Your task to perform on an android device: Find coffee shops on Maps Image 0: 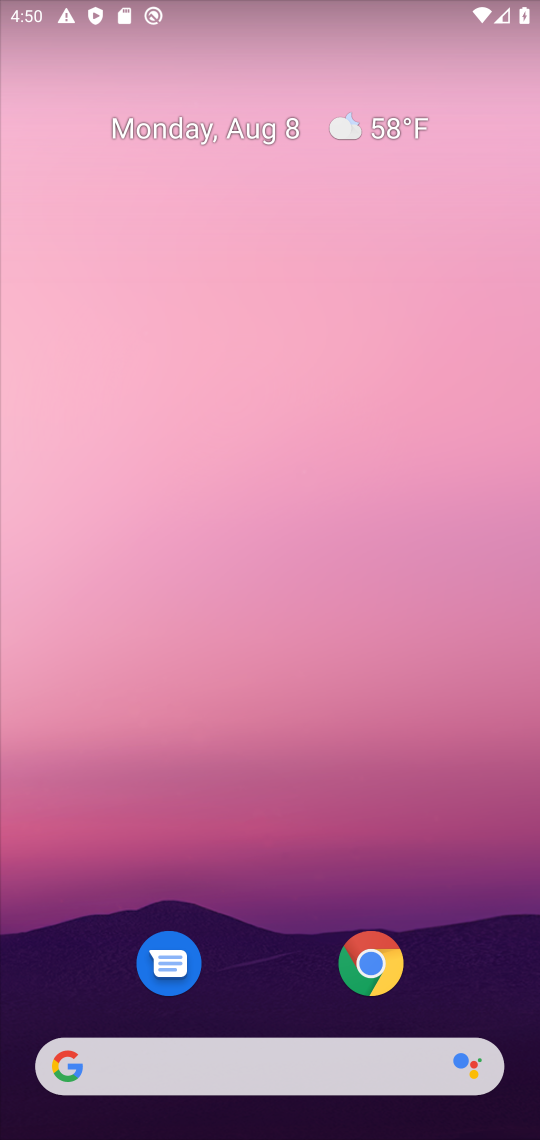
Step 0: drag from (265, 907) to (81, 1)
Your task to perform on an android device: Find coffee shops on Maps Image 1: 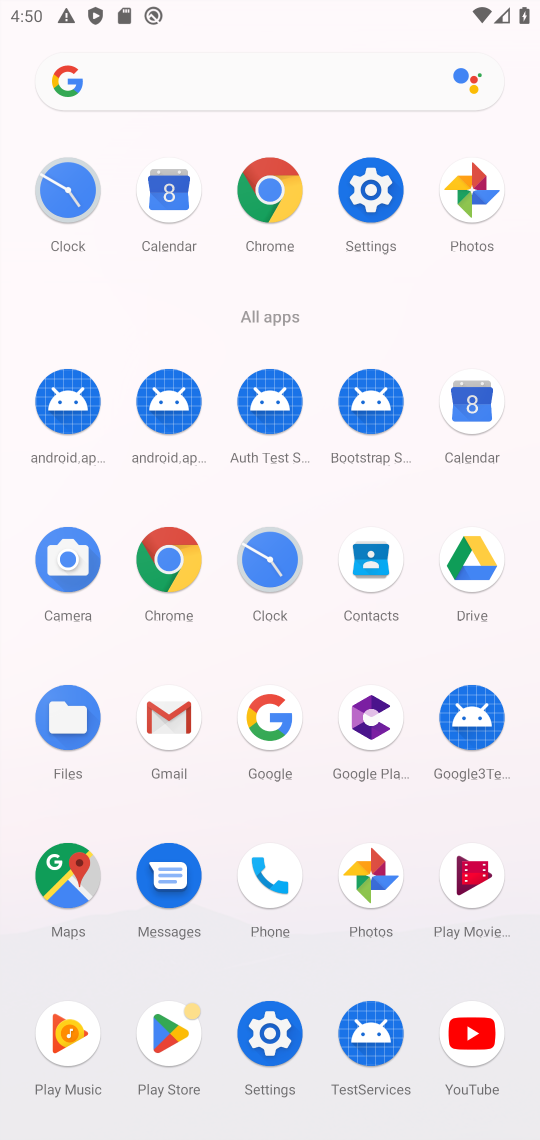
Step 1: click (60, 874)
Your task to perform on an android device: Find coffee shops on Maps Image 2: 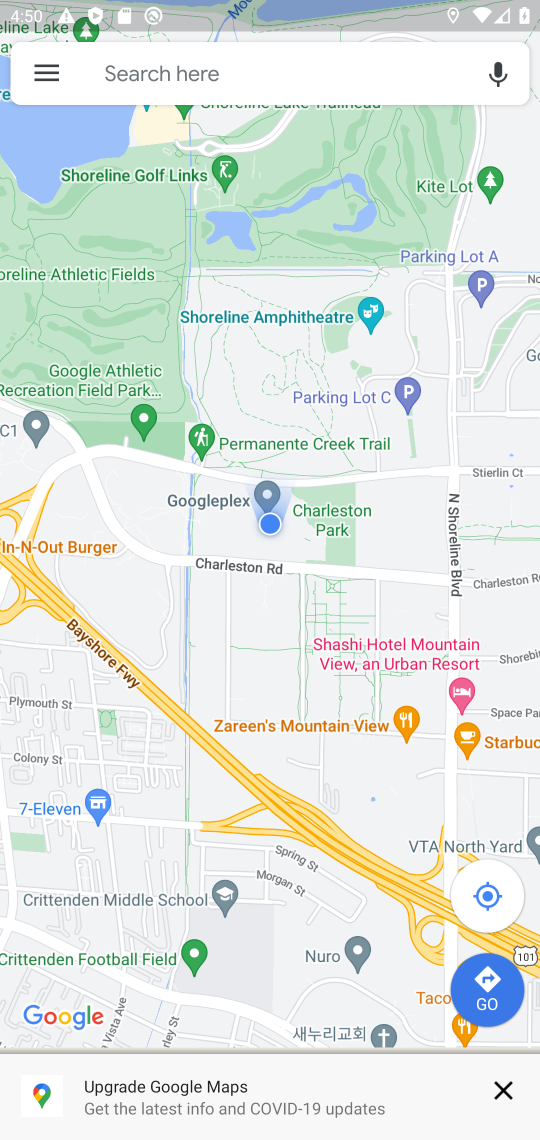
Step 2: click (273, 78)
Your task to perform on an android device: Find coffee shops on Maps Image 3: 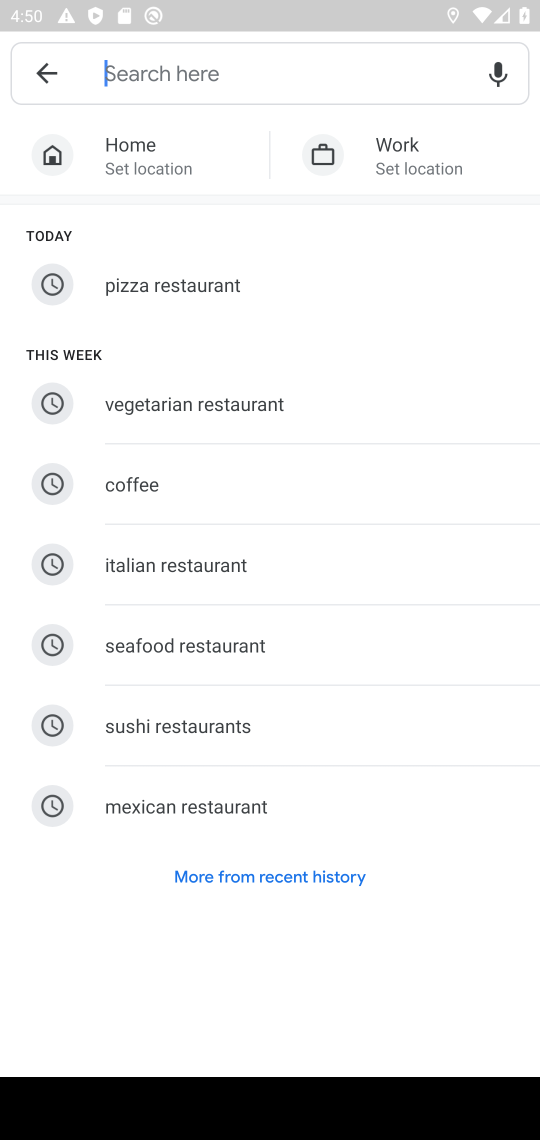
Step 3: type "coffee shops"
Your task to perform on an android device: Find coffee shops on Maps Image 4: 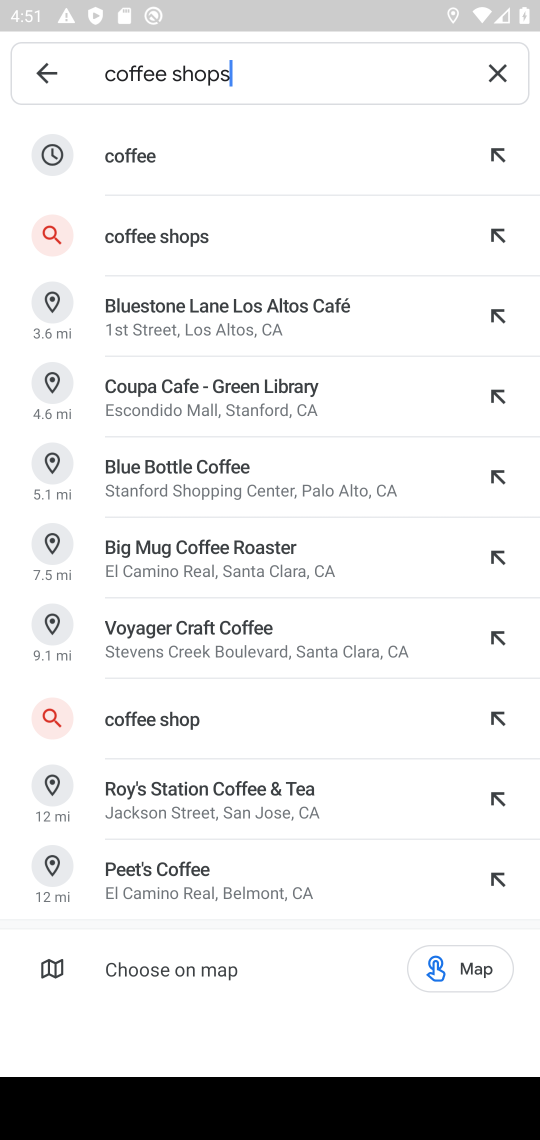
Step 4: click (211, 151)
Your task to perform on an android device: Find coffee shops on Maps Image 5: 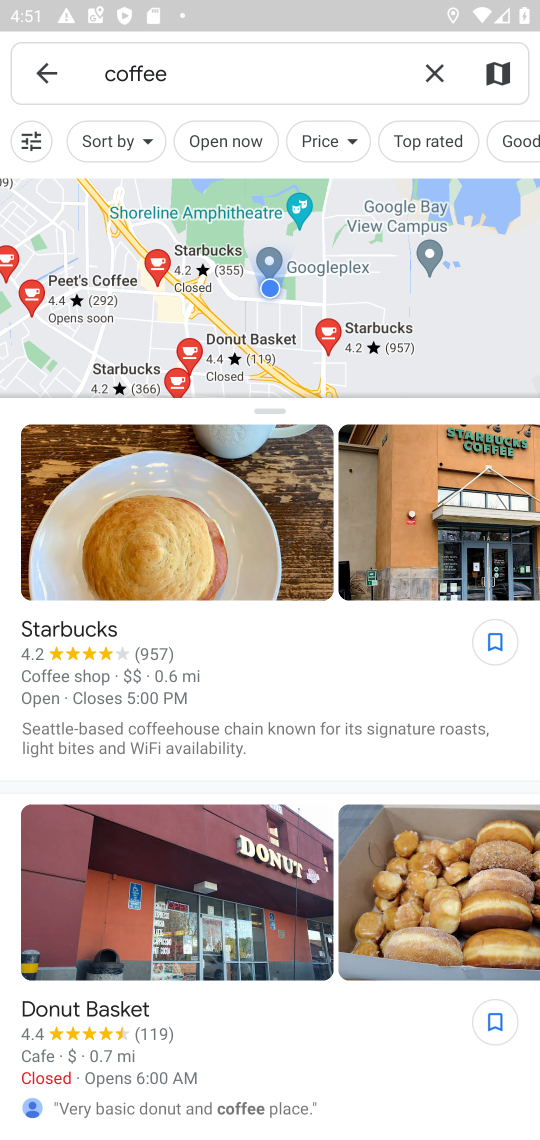
Step 5: task complete